Your task to perform on an android device: turn off picture-in-picture Image 0: 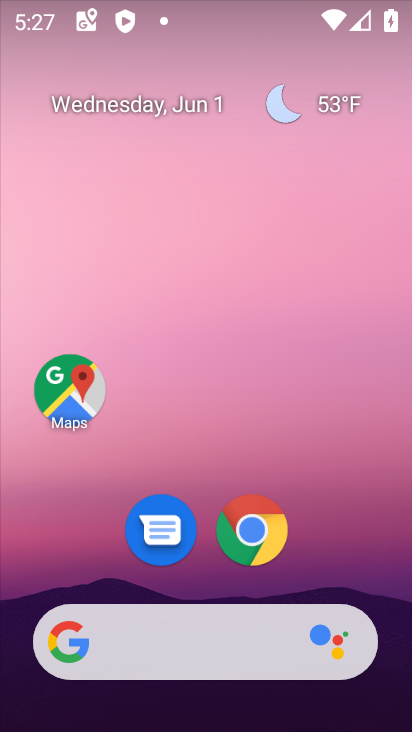
Step 0: drag from (195, 361) to (200, 279)
Your task to perform on an android device: turn off picture-in-picture Image 1: 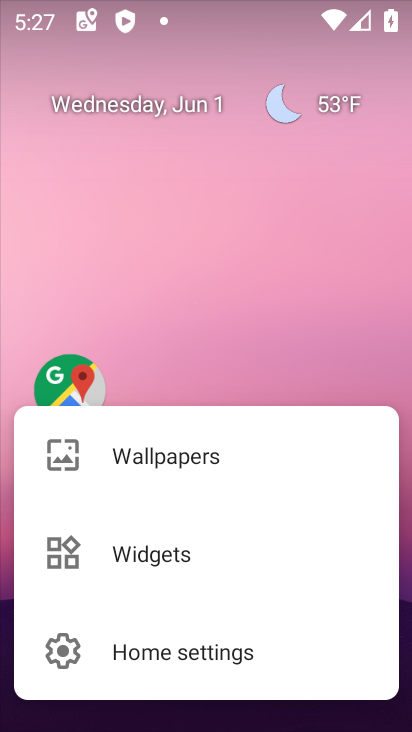
Step 1: click (265, 284)
Your task to perform on an android device: turn off picture-in-picture Image 2: 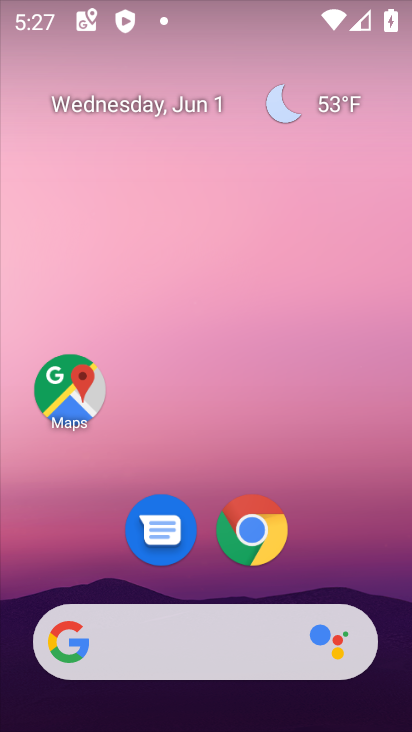
Step 2: drag from (200, 587) to (196, 191)
Your task to perform on an android device: turn off picture-in-picture Image 3: 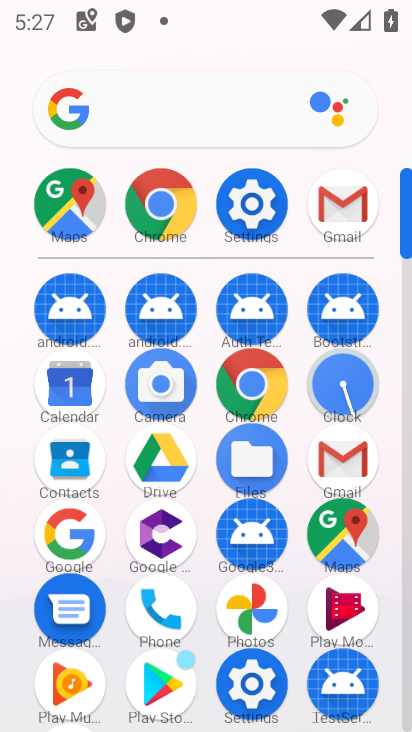
Step 3: click (244, 212)
Your task to perform on an android device: turn off picture-in-picture Image 4: 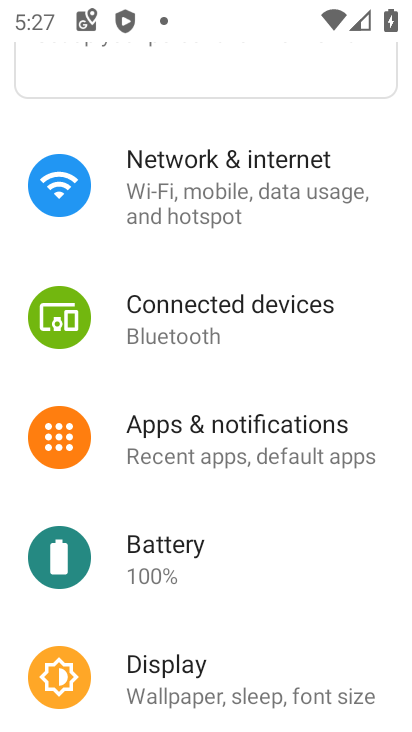
Step 4: click (216, 459)
Your task to perform on an android device: turn off picture-in-picture Image 5: 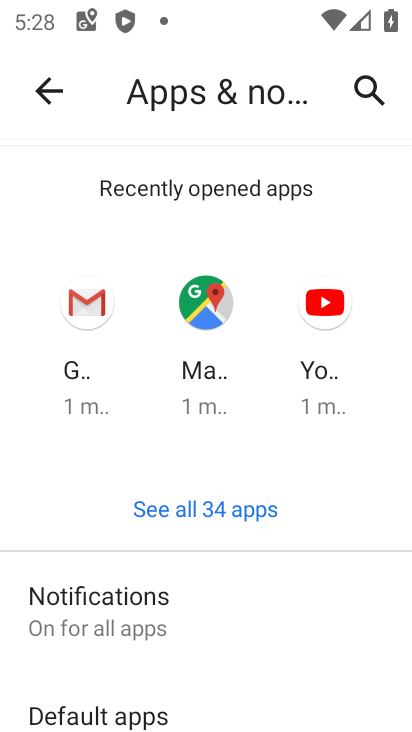
Step 5: drag from (145, 664) to (159, 389)
Your task to perform on an android device: turn off picture-in-picture Image 6: 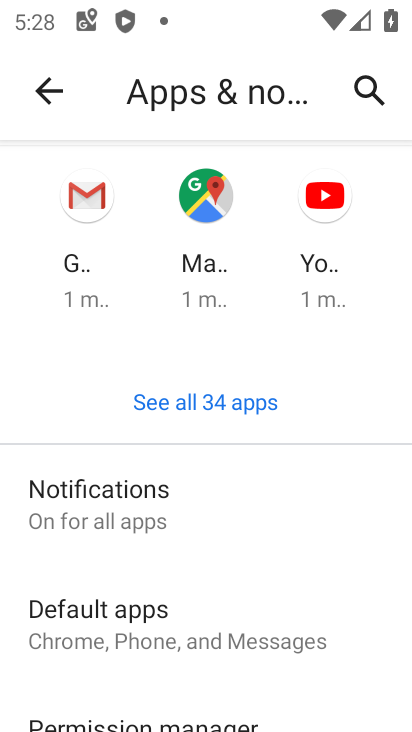
Step 6: drag from (213, 447) to (213, 317)
Your task to perform on an android device: turn off picture-in-picture Image 7: 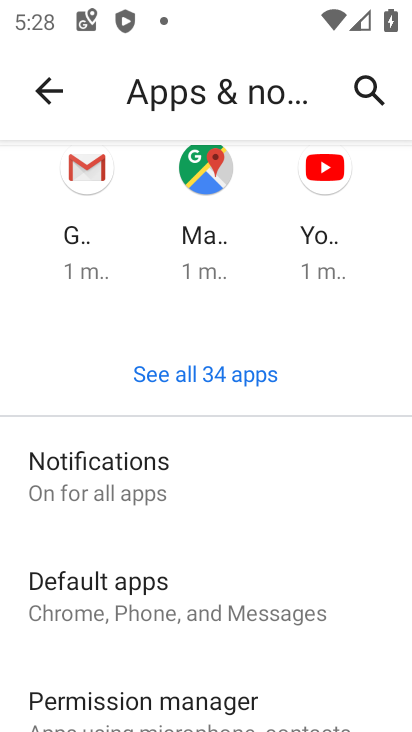
Step 7: drag from (158, 621) to (165, 347)
Your task to perform on an android device: turn off picture-in-picture Image 8: 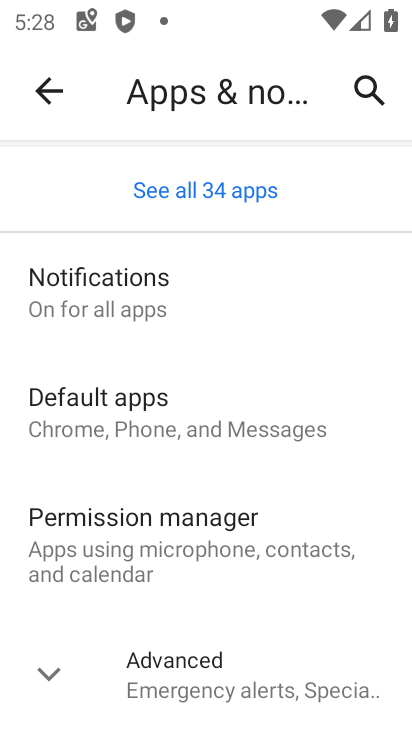
Step 8: click (162, 682)
Your task to perform on an android device: turn off picture-in-picture Image 9: 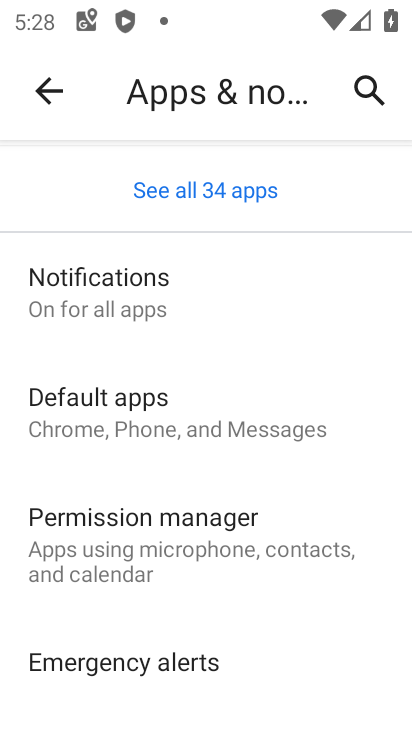
Step 9: drag from (162, 682) to (161, 431)
Your task to perform on an android device: turn off picture-in-picture Image 10: 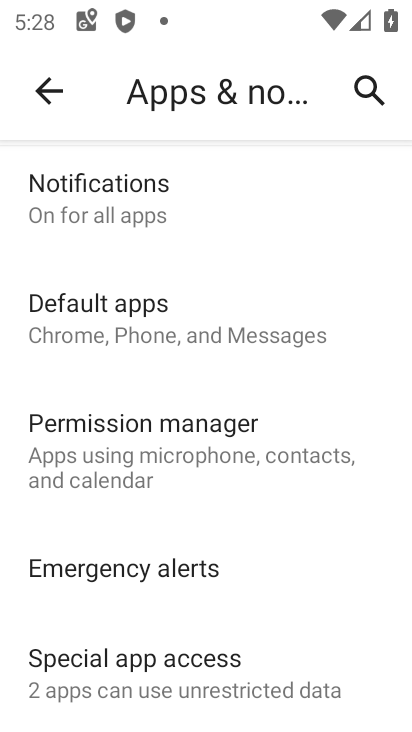
Step 10: click (186, 661)
Your task to perform on an android device: turn off picture-in-picture Image 11: 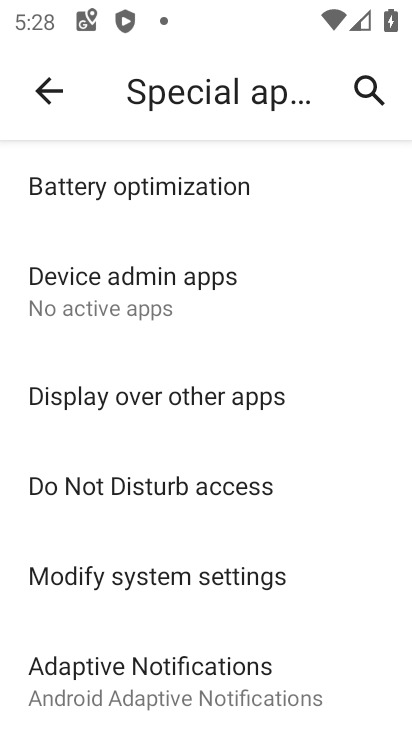
Step 11: drag from (180, 615) to (187, 360)
Your task to perform on an android device: turn off picture-in-picture Image 12: 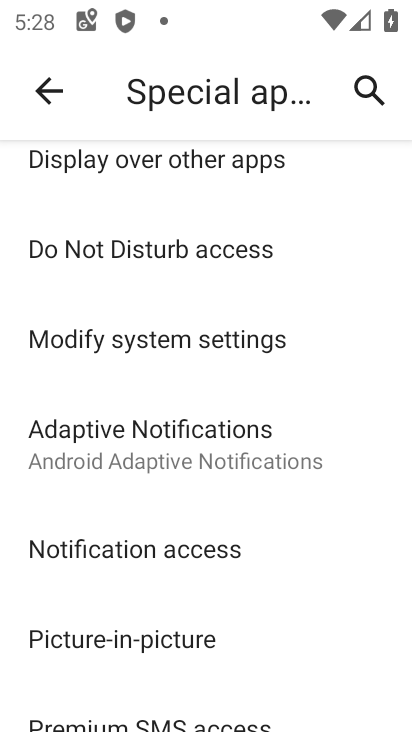
Step 12: click (148, 642)
Your task to perform on an android device: turn off picture-in-picture Image 13: 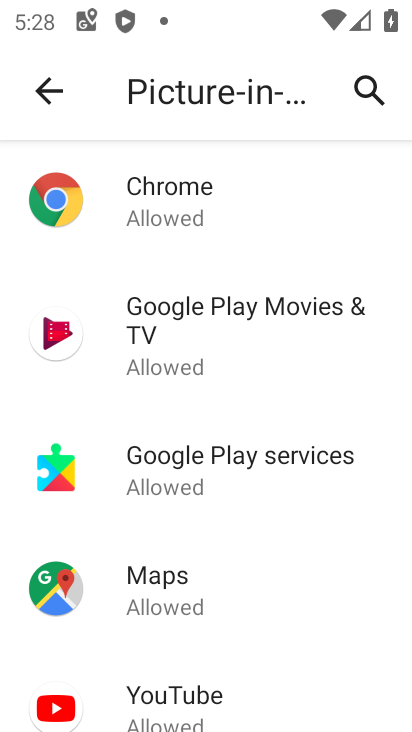
Step 13: click (161, 201)
Your task to perform on an android device: turn off picture-in-picture Image 14: 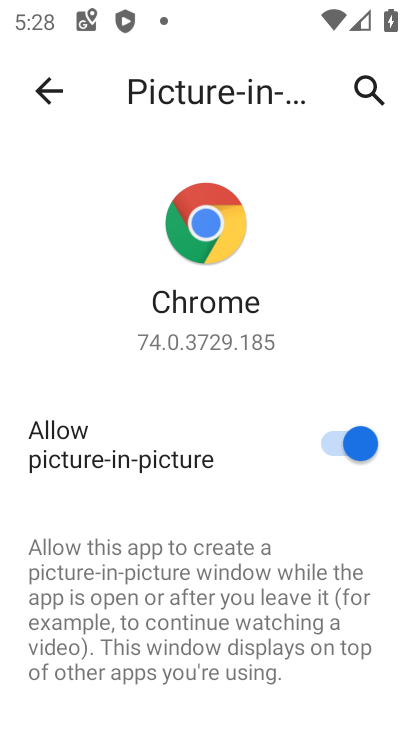
Step 14: click (326, 456)
Your task to perform on an android device: turn off picture-in-picture Image 15: 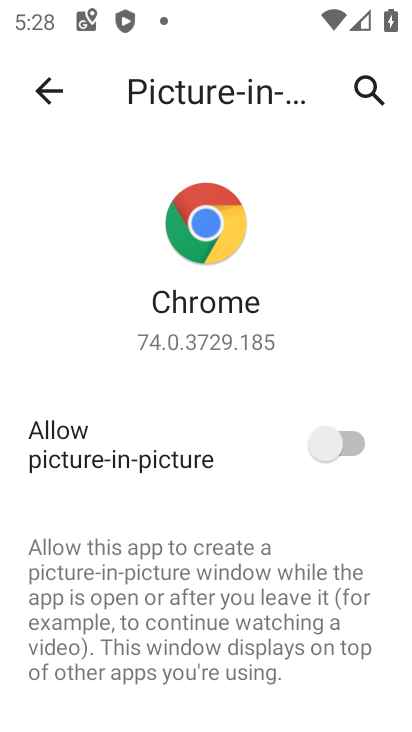
Step 15: task complete